Your task to perform on an android device: What's on my calendar today? Image 0: 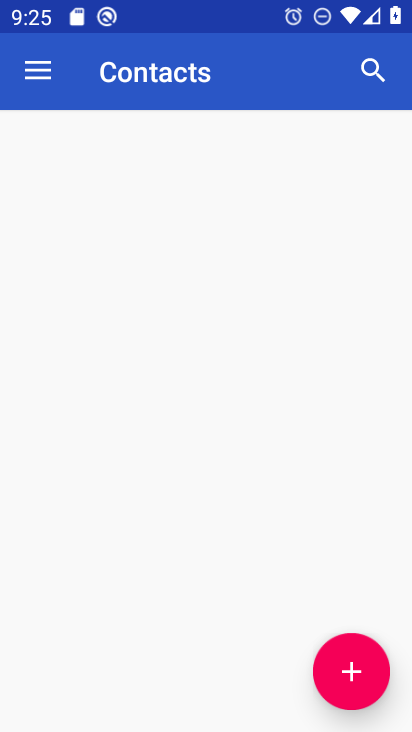
Step 0: drag from (186, 555) to (160, 342)
Your task to perform on an android device: What's on my calendar today? Image 1: 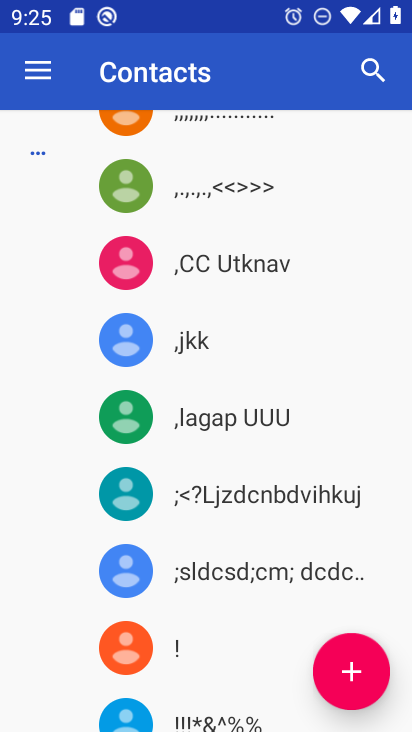
Step 1: press home button
Your task to perform on an android device: What's on my calendar today? Image 2: 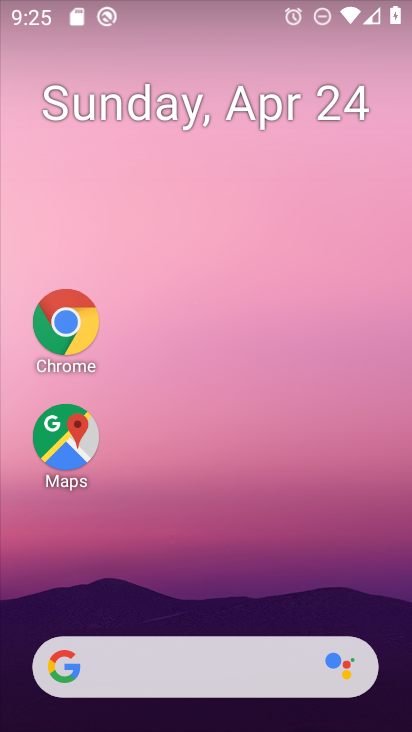
Step 2: drag from (259, 576) to (165, 16)
Your task to perform on an android device: What's on my calendar today? Image 3: 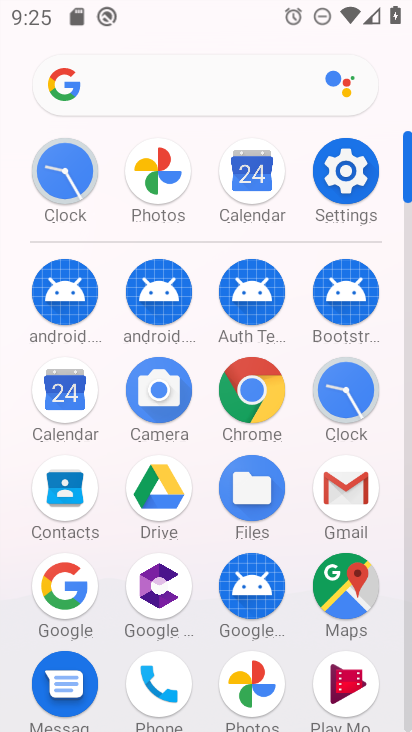
Step 3: click (64, 405)
Your task to perform on an android device: What's on my calendar today? Image 4: 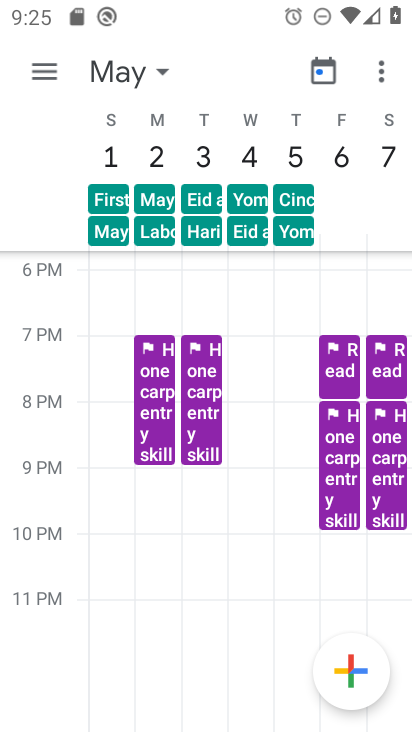
Step 4: click (37, 63)
Your task to perform on an android device: What's on my calendar today? Image 5: 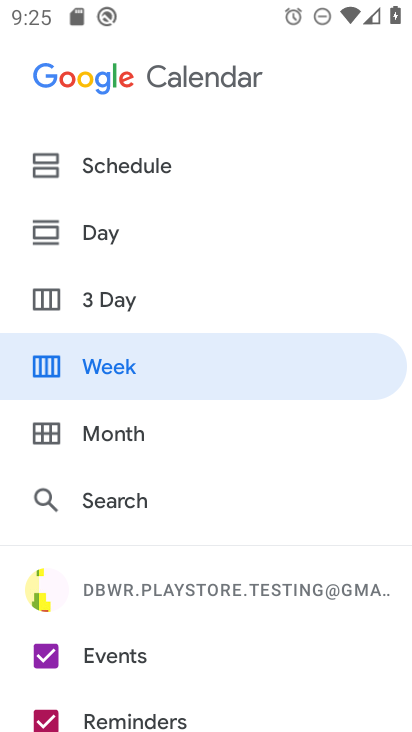
Step 5: click (90, 235)
Your task to perform on an android device: What's on my calendar today? Image 6: 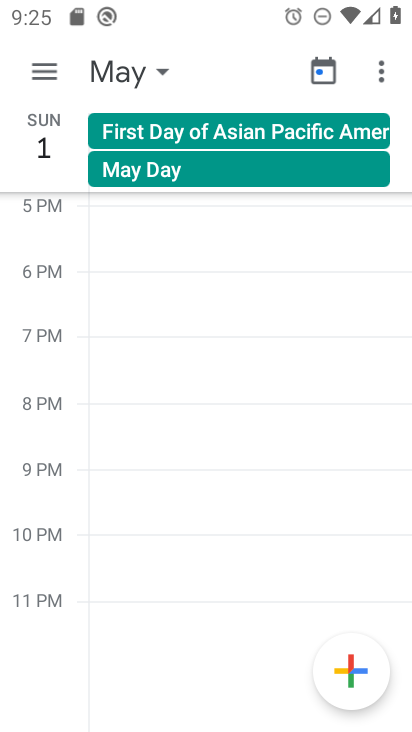
Step 6: click (166, 65)
Your task to perform on an android device: What's on my calendar today? Image 7: 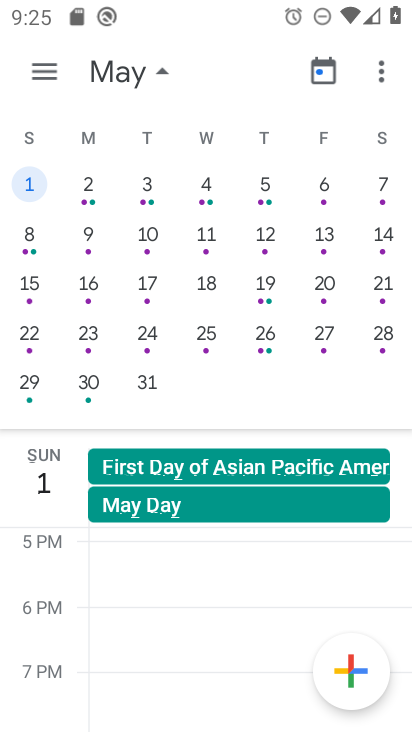
Step 7: task complete